Your task to perform on an android device: star an email in the gmail app Image 0: 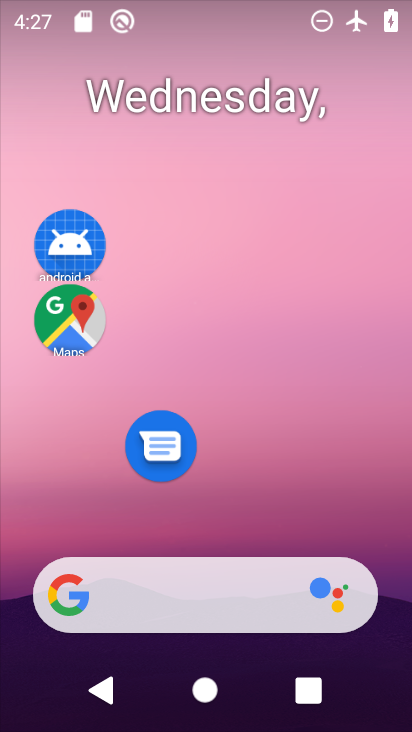
Step 0: drag from (322, 508) to (302, 239)
Your task to perform on an android device: star an email in the gmail app Image 1: 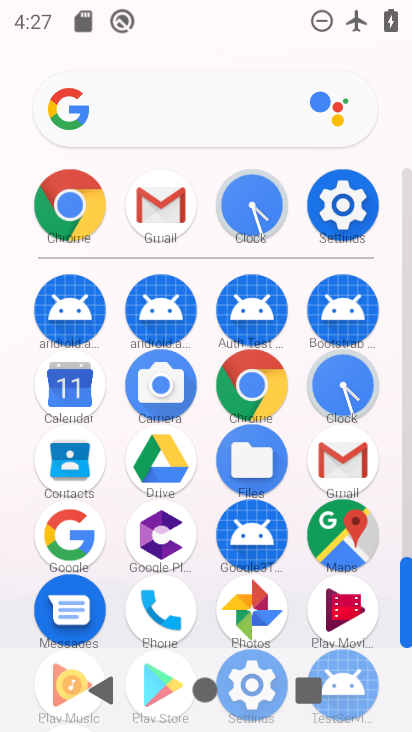
Step 1: click (162, 226)
Your task to perform on an android device: star an email in the gmail app Image 2: 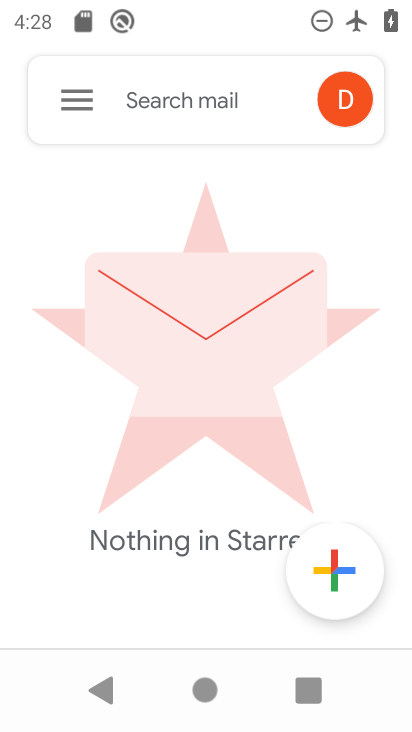
Step 2: click (65, 86)
Your task to perform on an android device: star an email in the gmail app Image 3: 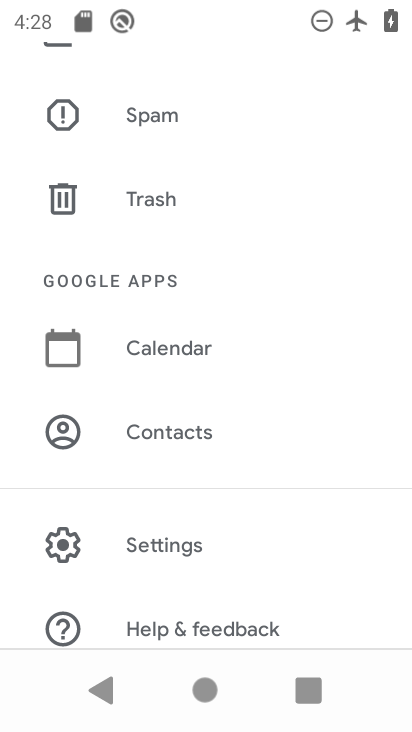
Step 3: drag from (200, 149) to (209, 297)
Your task to perform on an android device: star an email in the gmail app Image 4: 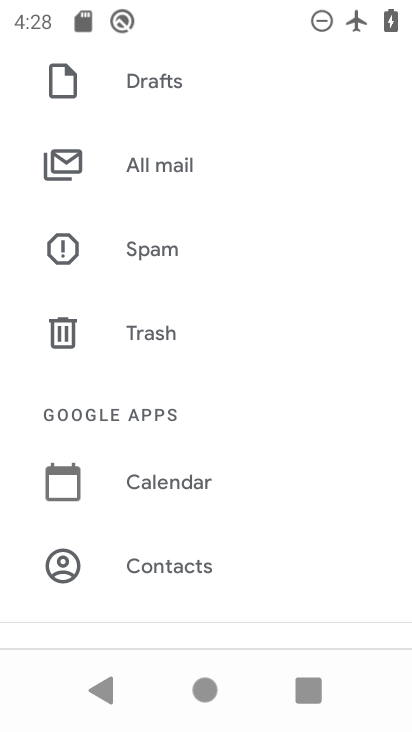
Step 4: click (219, 177)
Your task to perform on an android device: star an email in the gmail app Image 5: 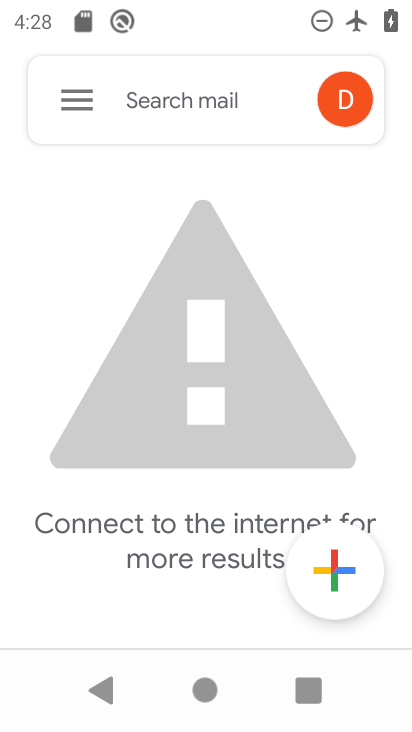
Step 5: task complete